Your task to perform on an android device: check android version Image 0: 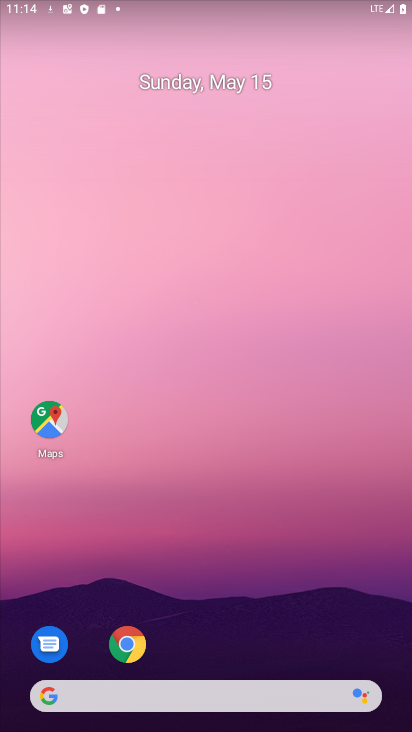
Step 0: drag from (223, 700) to (353, 176)
Your task to perform on an android device: check android version Image 1: 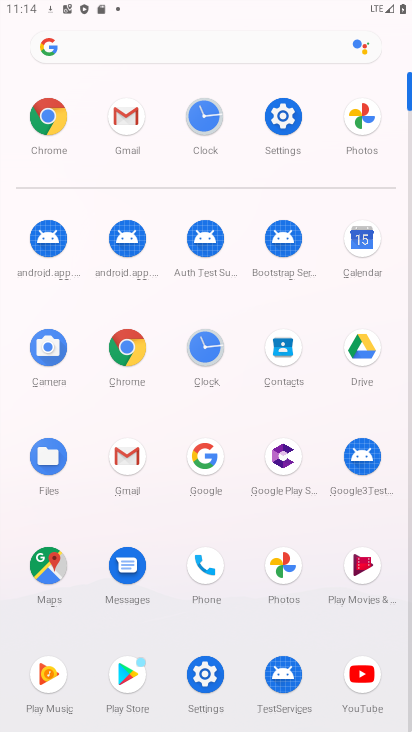
Step 1: click (280, 105)
Your task to perform on an android device: check android version Image 2: 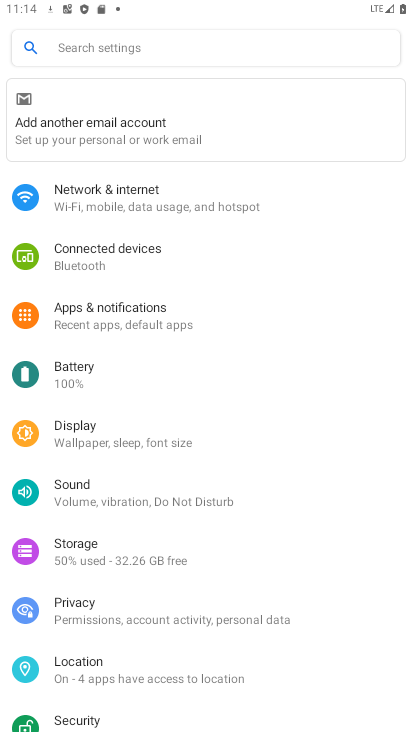
Step 2: click (152, 56)
Your task to perform on an android device: check android version Image 3: 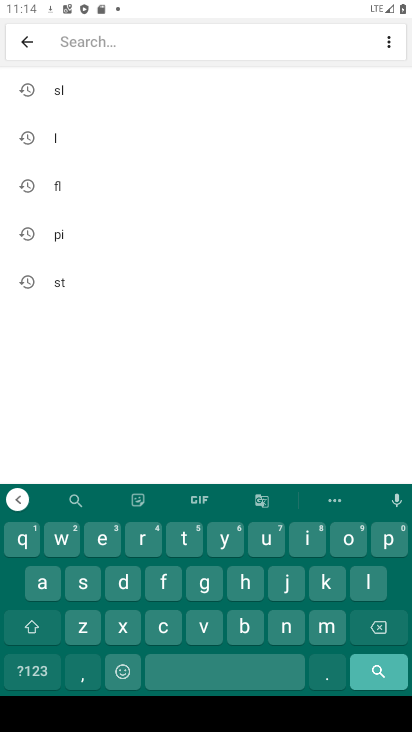
Step 3: click (38, 586)
Your task to perform on an android device: check android version Image 4: 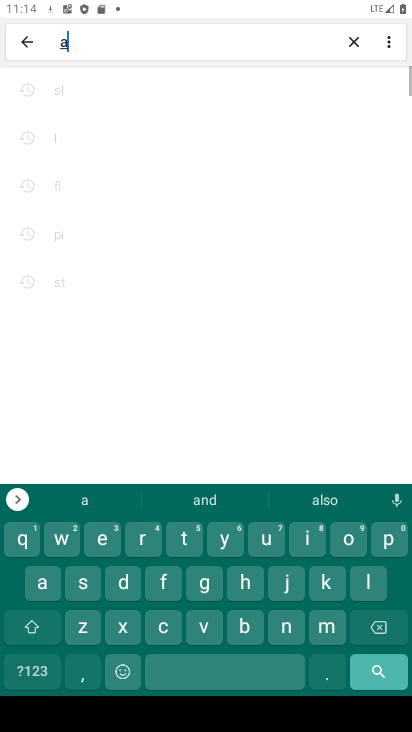
Step 4: click (289, 623)
Your task to perform on an android device: check android version Image 5: 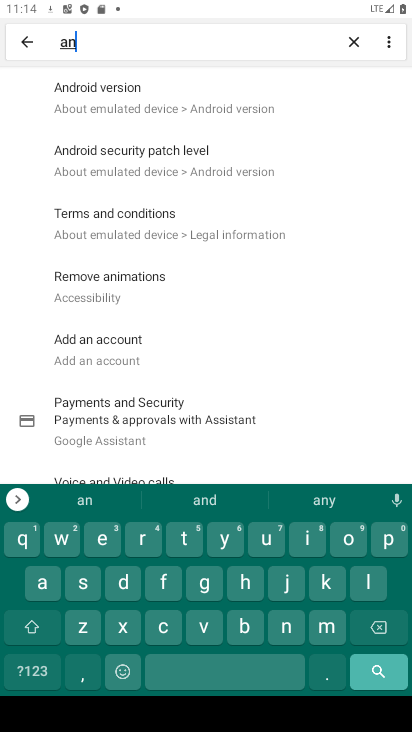
Step 5: click (154, 108)
Your task to perform on an android device: check android version Image 6: 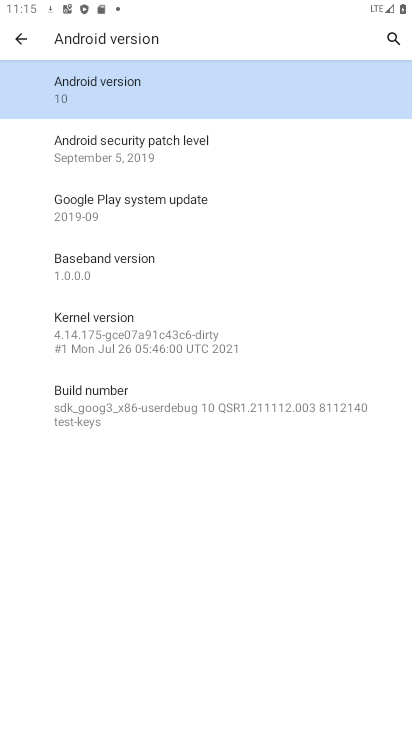
Step 6: click (129, 98)
Your task to perform on an android device: check android version Image 7: 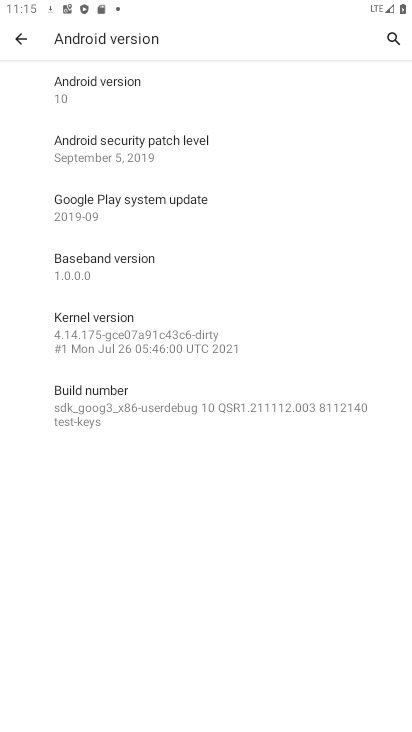
Step 7: click (138, 99)
Your task to perform on an android device: check android version Image 8: 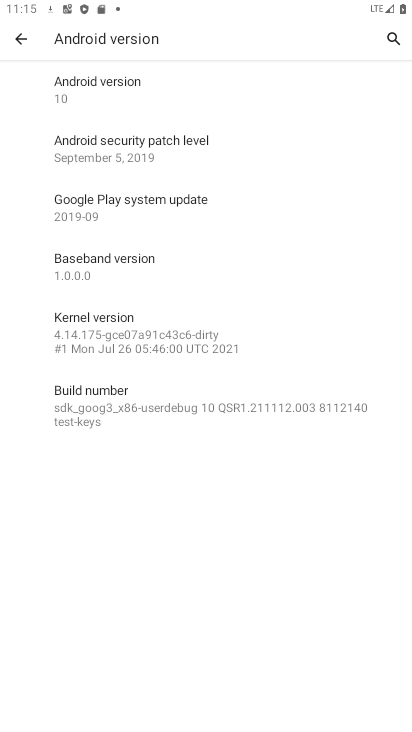
Step 8: task complete